Your task to perform on an android device: turn off location history Image 0: 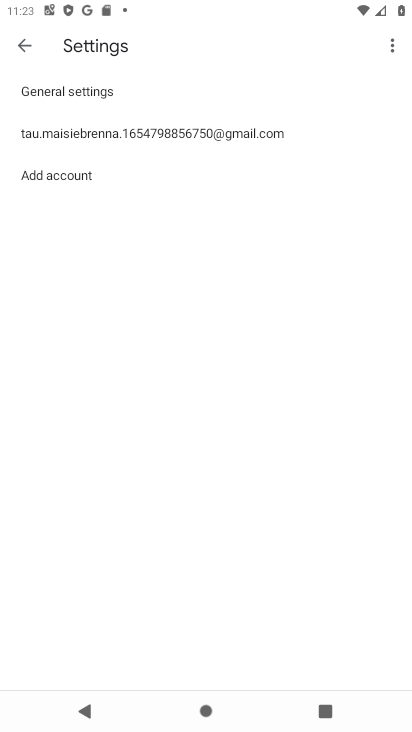
Step 0: press home button
Your task to perform on an android device: turn off location history Image 1: 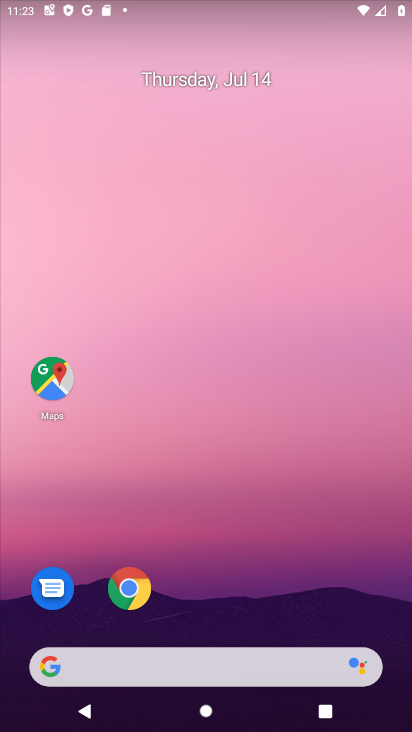
Step 1: drag from (166, 663) to (277, 107)
Your task to perform on an android device: turn off location history Image 2: 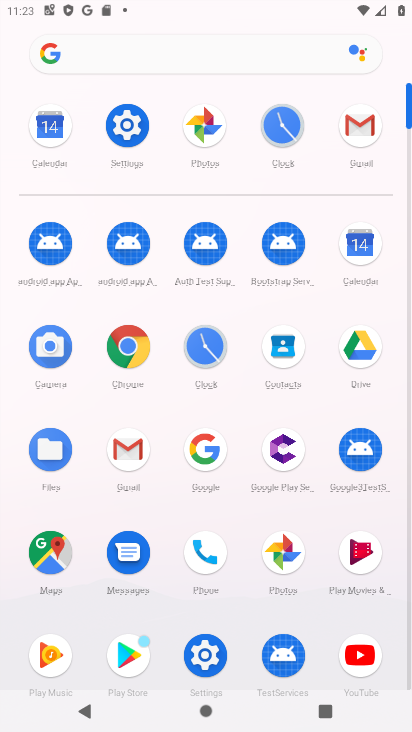
Step 2: click (136, 132)
Your task to perform on an android device: turn off location history Image 3: 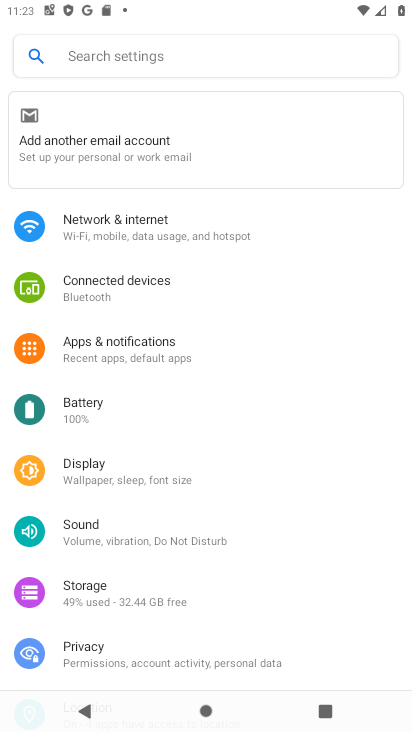
Step 3: drag from (281, 569) to (330, 135)
Your task to perform on an android device: turn off location history Image 4: 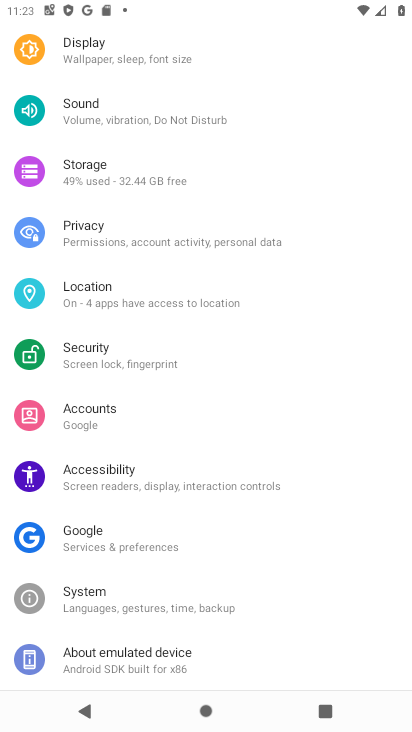
Step 4: click (107, 292)
Your task to perform on an android device: turn off location history Image 5: 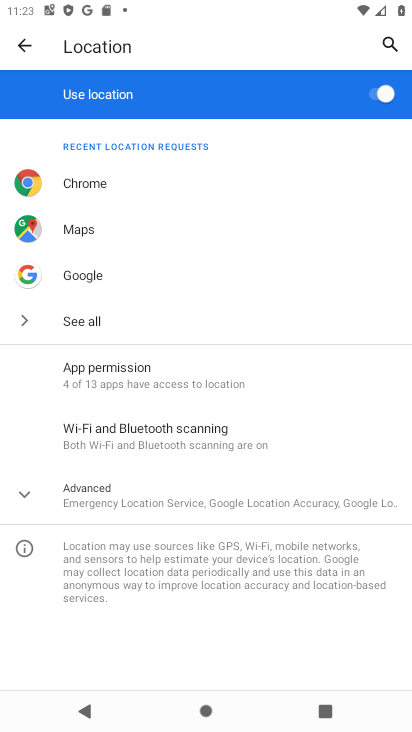
Step 5: click (110, 494)
Your task to perform on an android device: turn off location history Image 6: 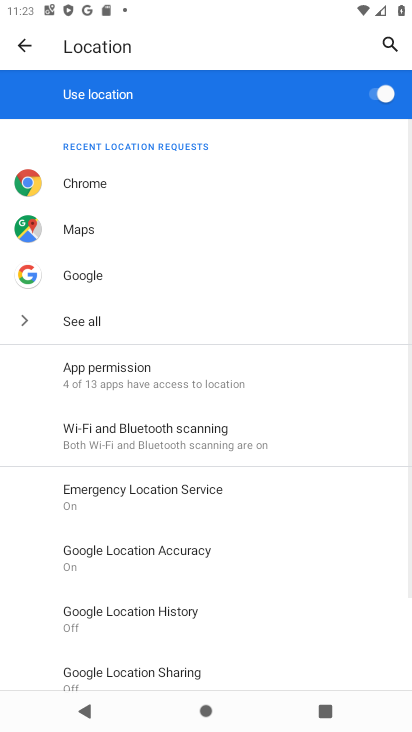
Step 6: drag from (291, 527) to (380, 210)
Your task to perform on an android device: turn off location history Image 7: 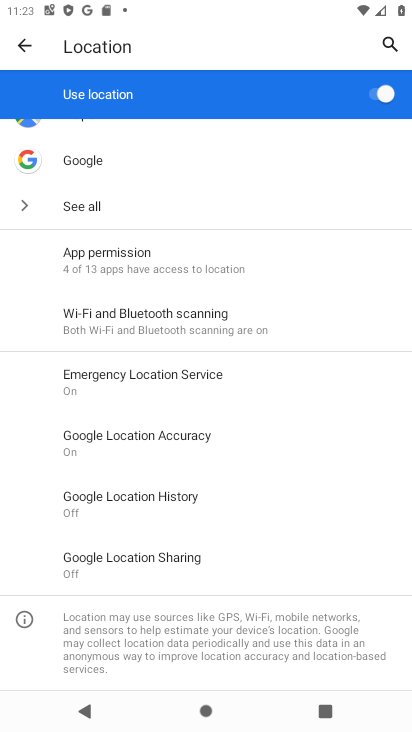
Step 7: click (148, 500)
Your task to perform on an android device: turn off location history Image 8: 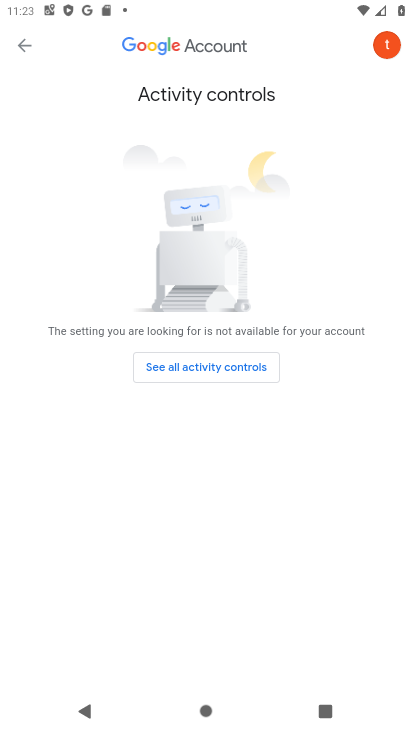
Step 8: task complete